Your task to perform on an android device: open sync settings in chrome Image 0: 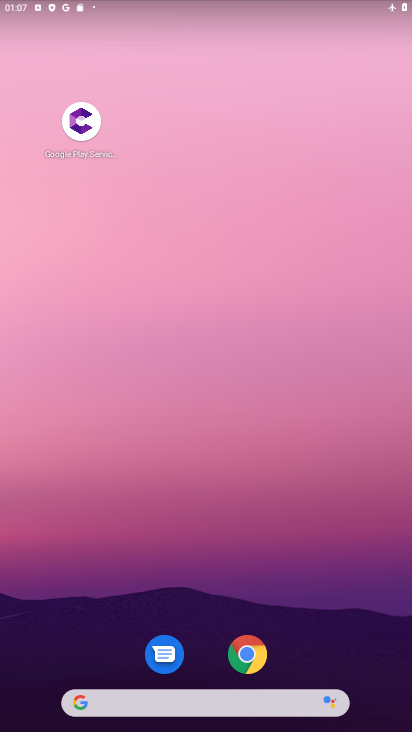
Step 0: drag from (335, 705) to (393, 11)
Your task to perform on an android device: open sync settings in chrome Image 1: 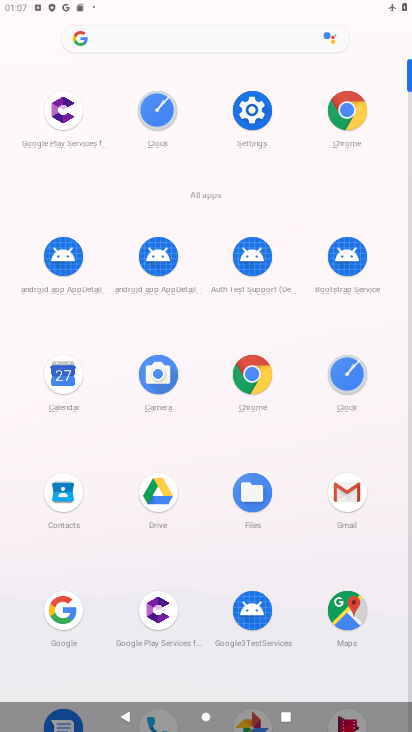
Step 1: click (269, 378)
Your task to perform on an android device: open sync settings in chrome Image 2: 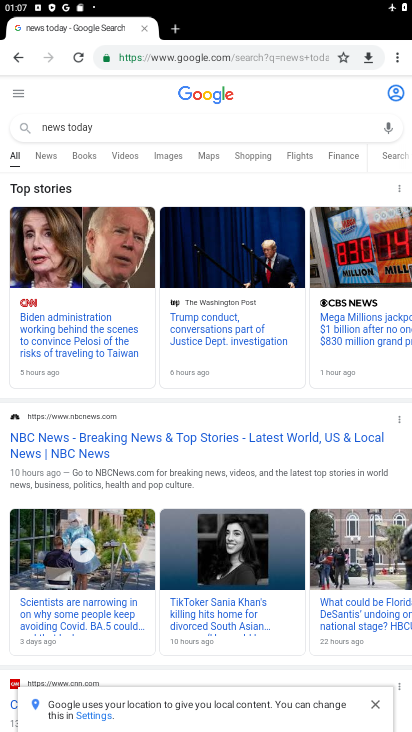
Step 2: click (394, 56)
Your task to perform on an android device: open sync settings in chrome Image 3: 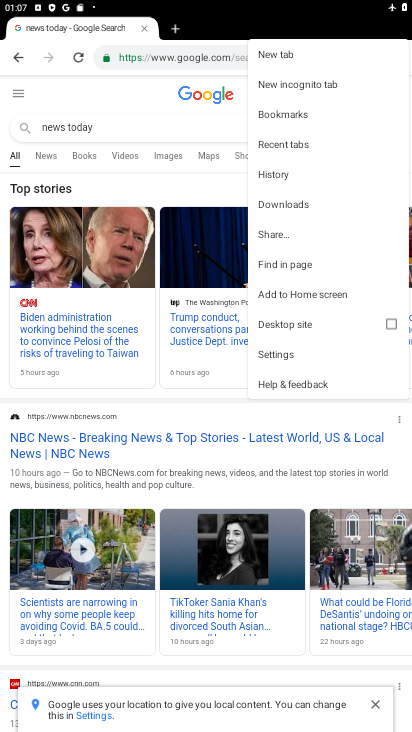
Step 3: click (303, 353)
Your task to perform on an android device: open sync settings in chrome Image 4: 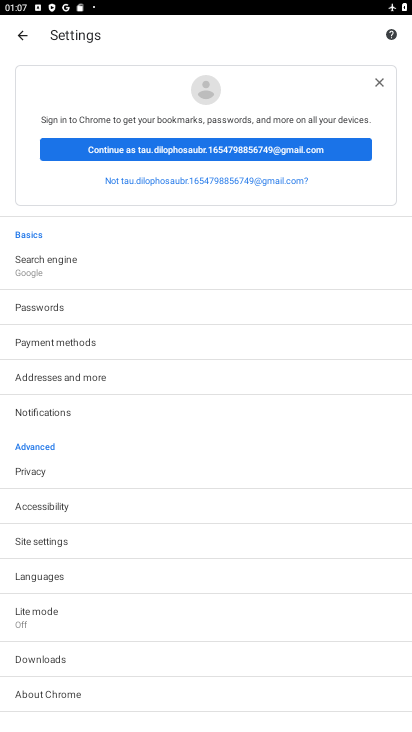
Step 4: click (65, 541)
Your task to perform on an android device: open sync settings in chrome Image 5: 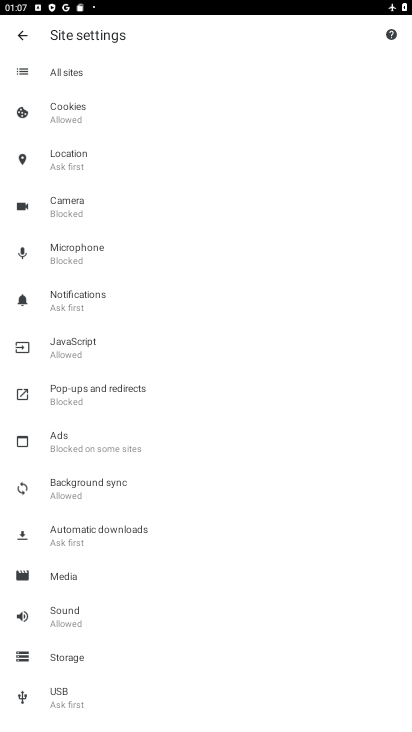
Step 5: click (122, 490)
Your task to perform on an android device: open sync settings in chrome Image 6: 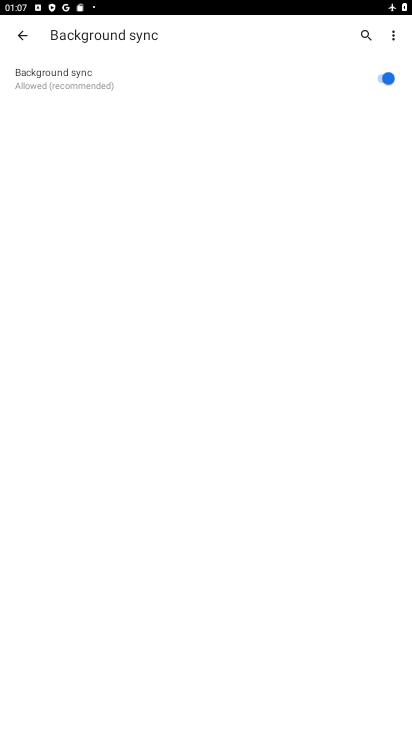
Step 6: task complete